Your task to perform on an android device: Open calendar and show me the fourth week of next month Image 0: 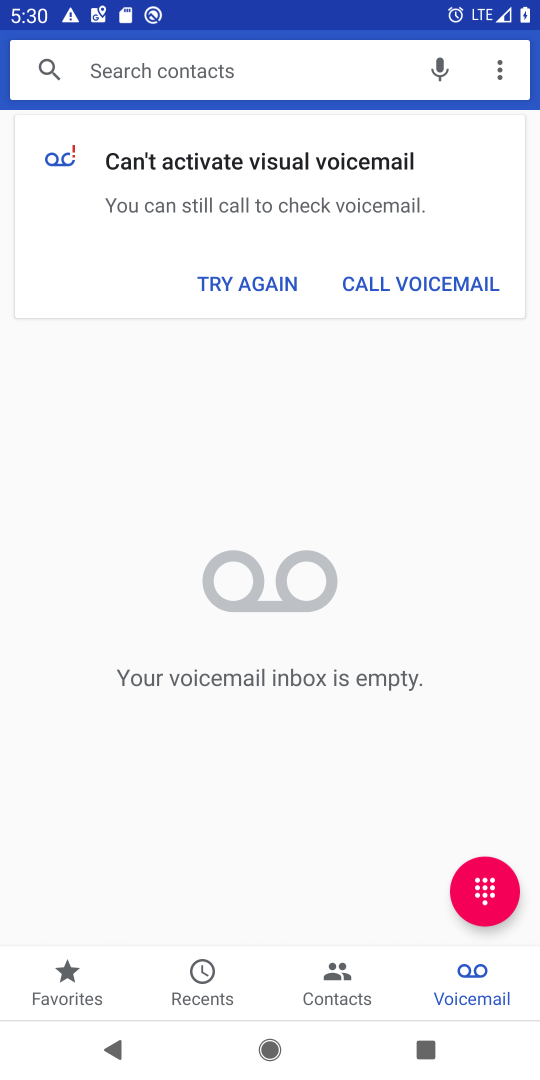
Step 0: press back button
Your task to perform on an android device: Open calendar and show me the fourth week of next month Image 1: 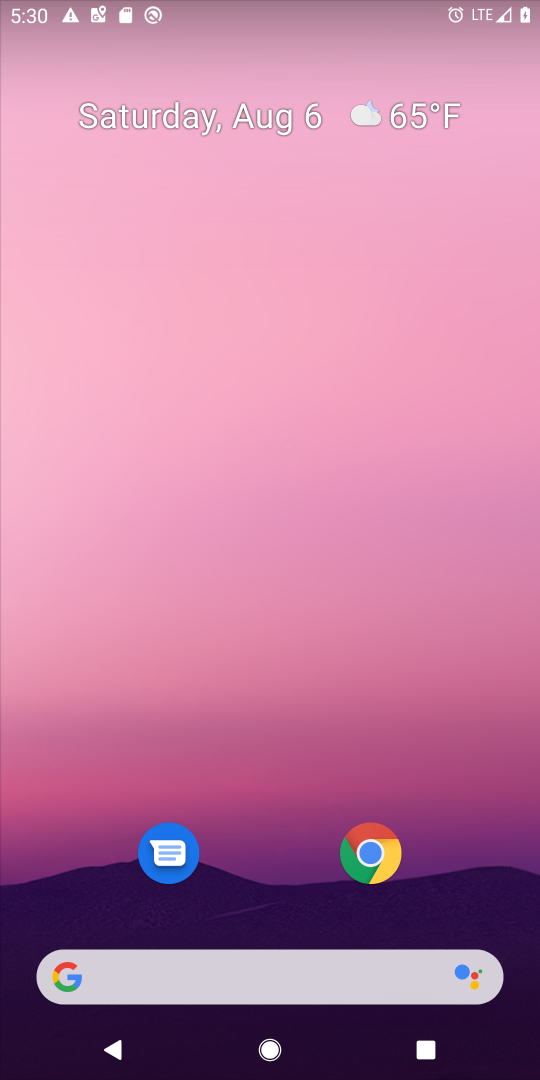
Step 1: drag from (223, 847) to (281, 0)
Your task to perform on an android device: Open calendar and show me the fourth week of next month Image 2: 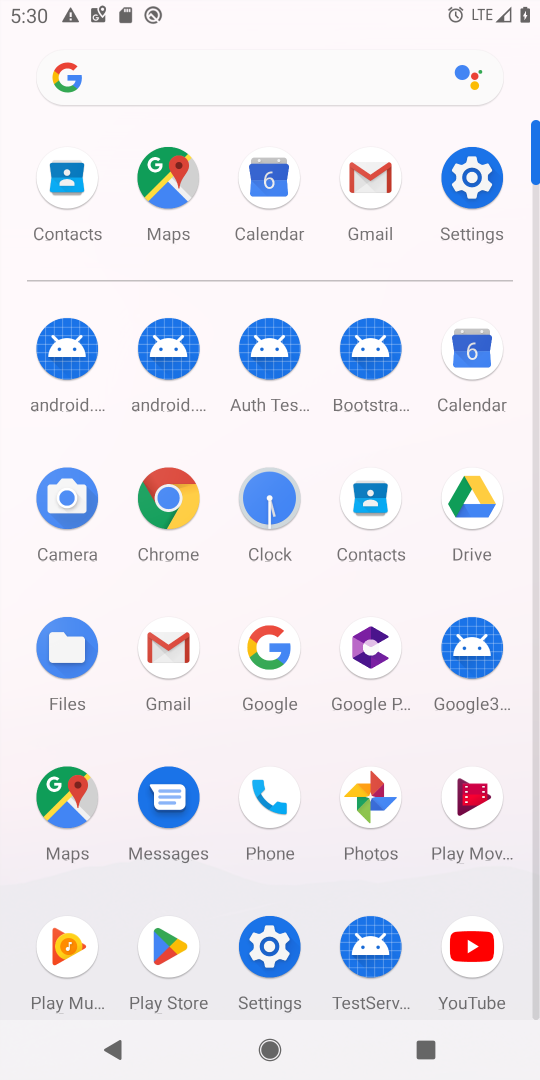
Step 2: click (476, 355)
Your task to perform on an android device: Open calendar and show me the fourth week of next month Image 3: 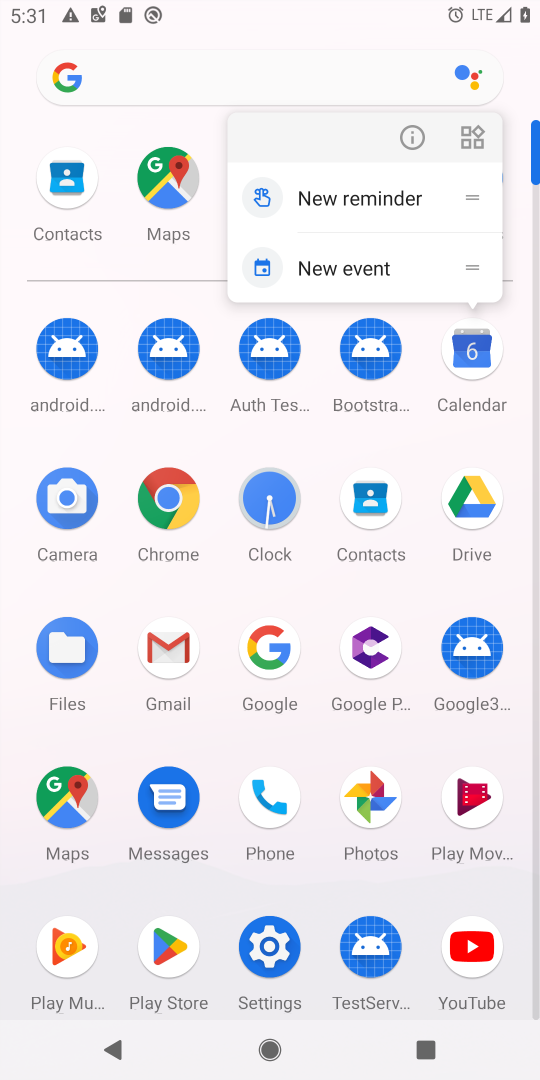
Step 3: click (459, 363)
Your task to perform on an android device: Open calendar and show me the fourth week of next month Image 4: 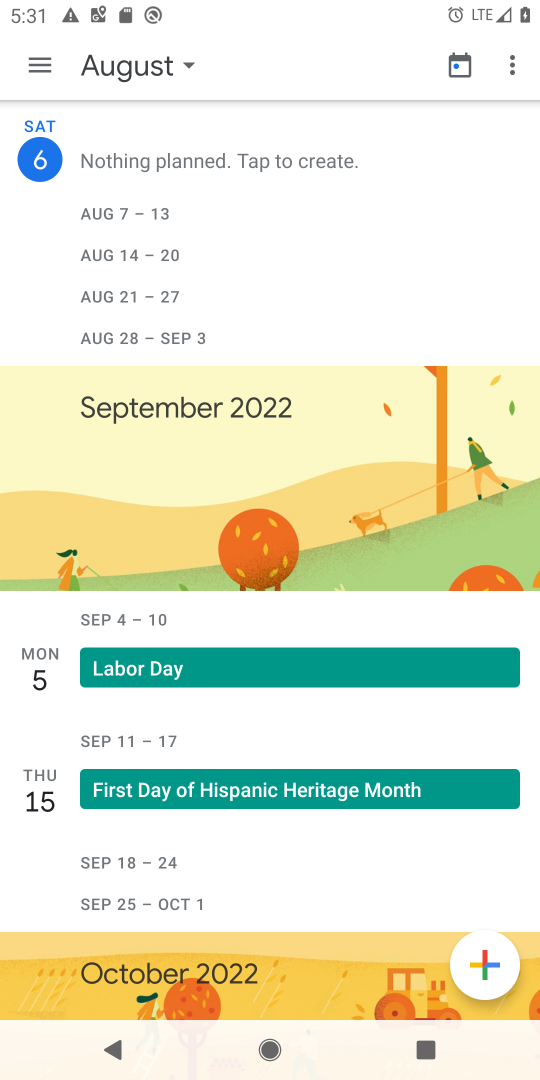
Step 4: click (161, 65)
Your task to perform on an android device: Open calendar and show me the fourth week of next month Image 5: 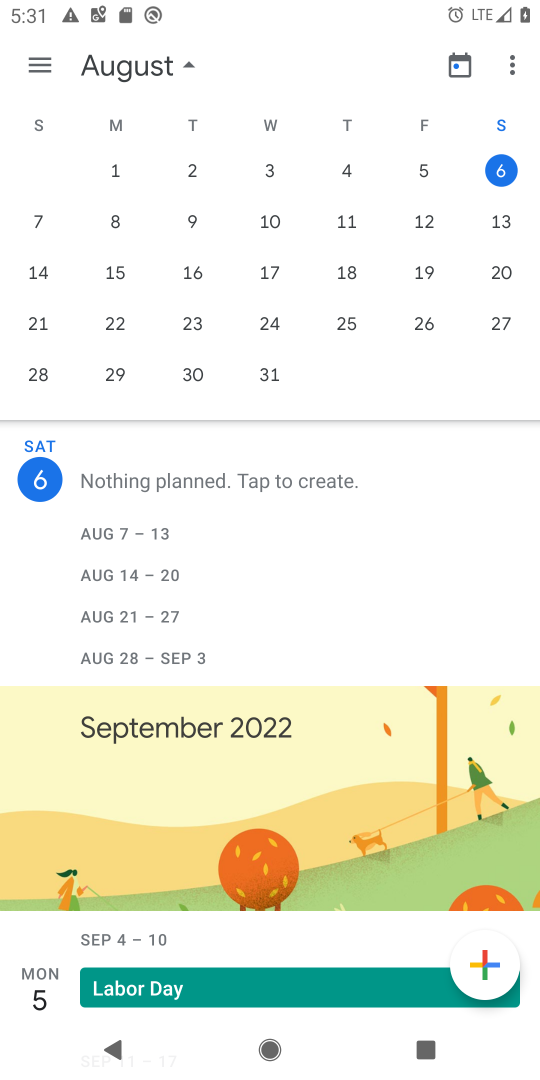
Step 5: drag from (502, 270) to (45, 290)
Your task to perform on an android device: Open calendar and show me the fourth week of next month Image 6: 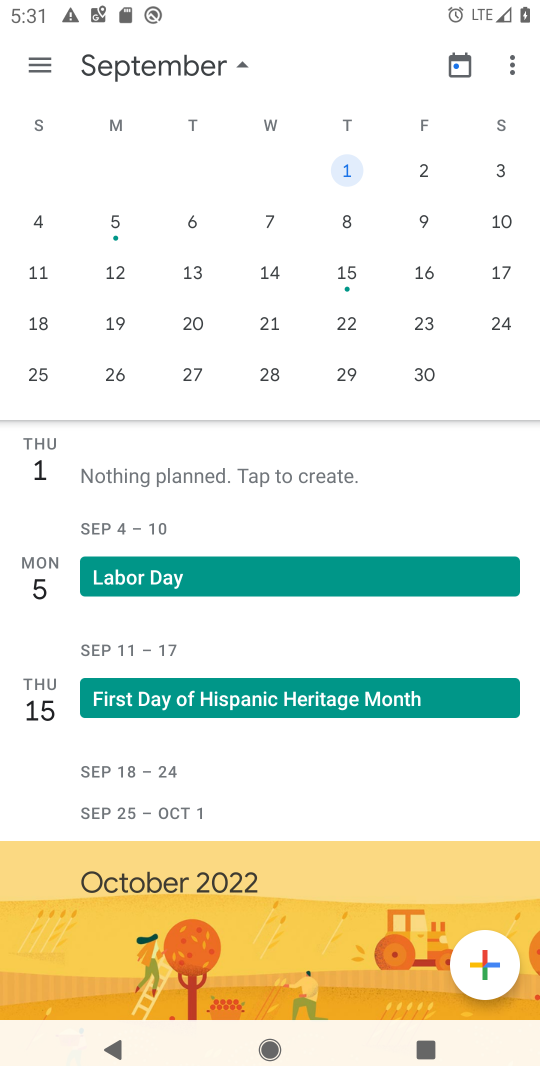
Step 6: click (117, 318)
Your task to perform on an android device: Open calendar and show me the fourth week of next month Image 7: 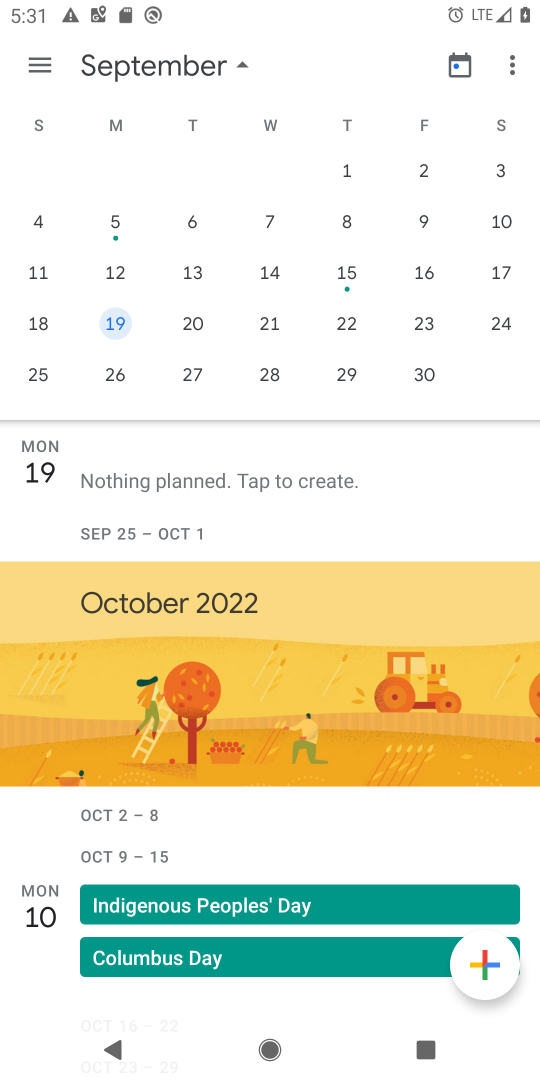
Step 7: task complete